Your task to perform on an android device: toggle sleep mode Image 0: 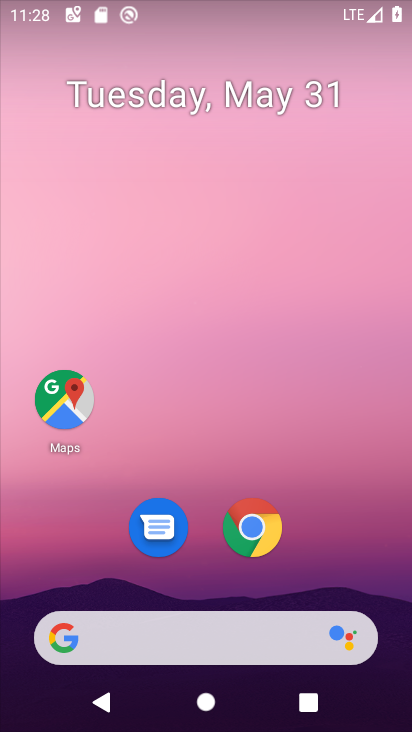
Step 0: drag from (354, 585) to (321, 3)
Your task to perform on an android device: toggle sleep mode Image 1: 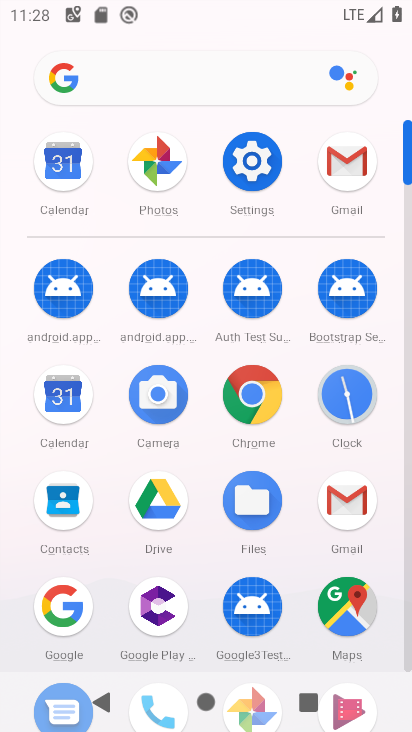
Step 1: click (245, 162)
Your task to perform on an android device: toggle sleep mode Image 2: 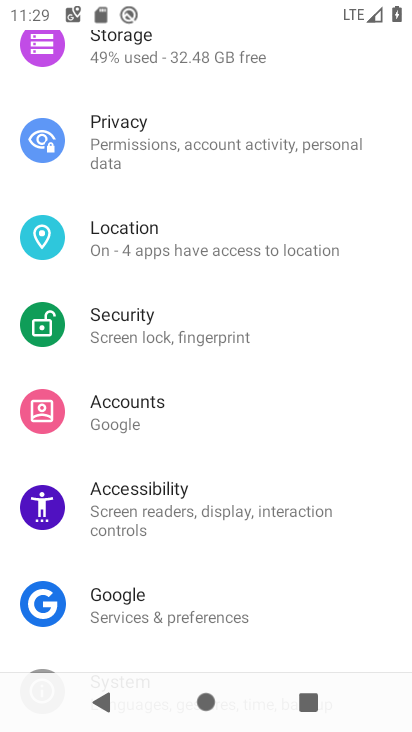
Step 2: drag from (189, 485) to (194, 543)
Your task to perform on an android device: toggle sleep mode Image 3: 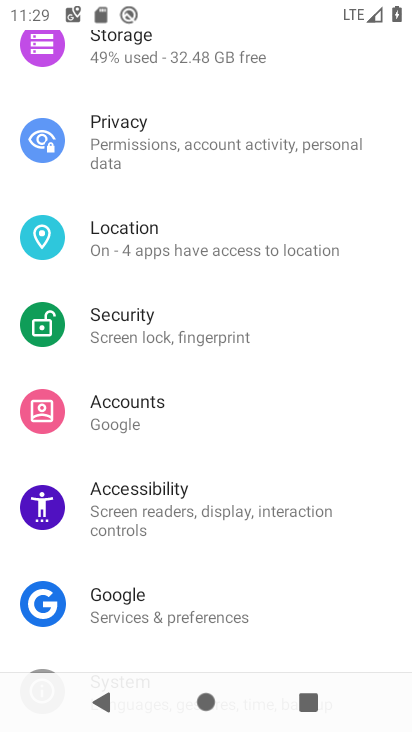
Step 3: drag from (256, 202) to (256, 449)
Your task to perform on an android device: toggle sleep mode Image 4: 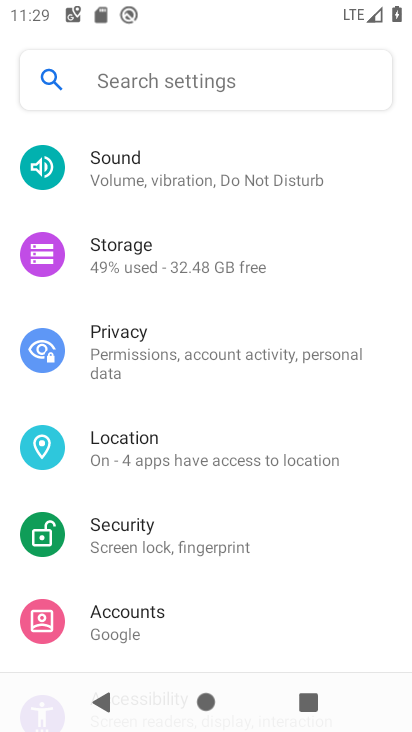
Step 4: drag from (326, 147) to (313, 534)
Your task to perform on an android device: toggle sleep mode Image 5: 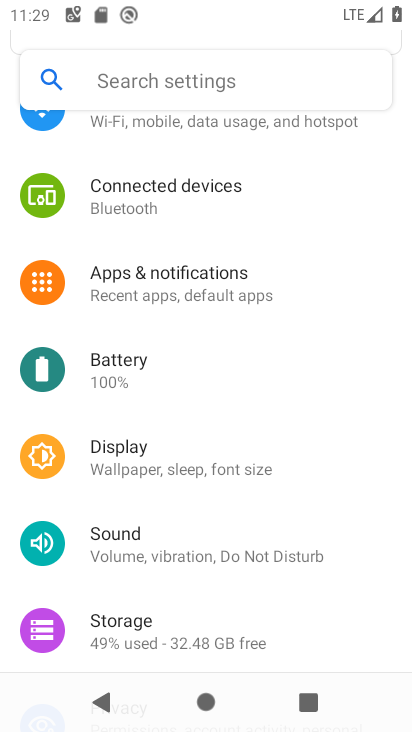
Step 5: click (120, 460)
Your task to perform on an android device: toggle sleep mode Image 6: 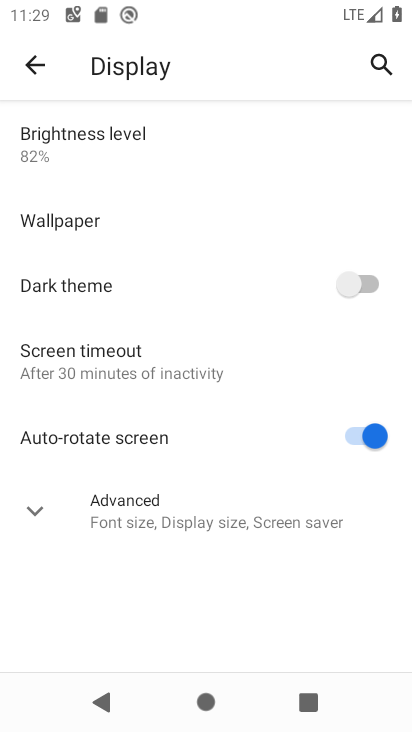
Step 6: click (32, 519)
Your task to perform on an android device: toggle sleep mode Image 7: 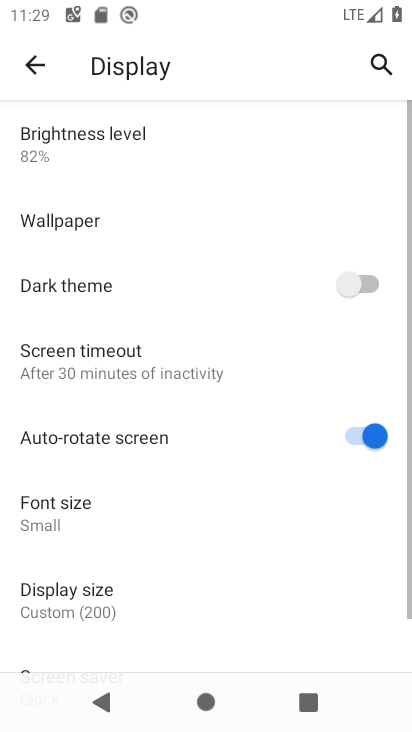
Step 7: task complete